Your task to perform on an android device: turn on location history Image 0: 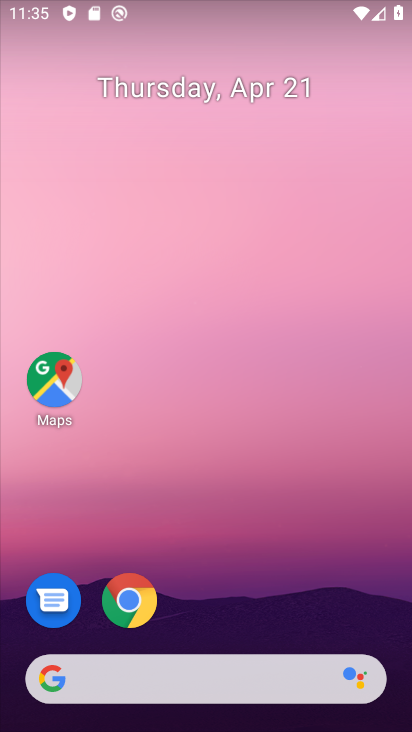
Step 0: drag from (304, 560) to (344, 64)
Your task to perform on an android device: turn on location history Image 1: 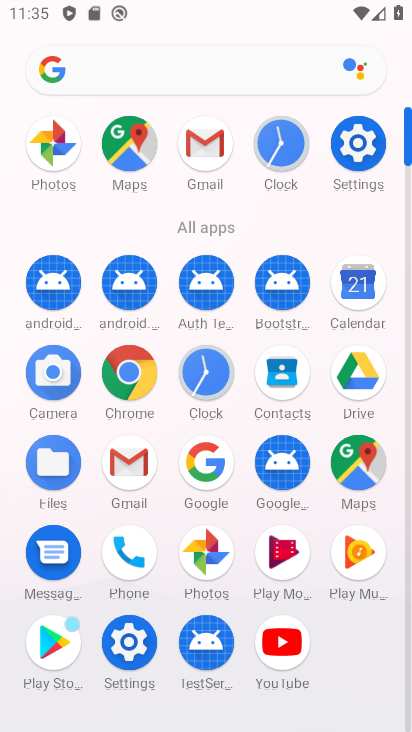
Step 1: click (351, 155)
Your task to perform on an android device: turn on location history Image 2: 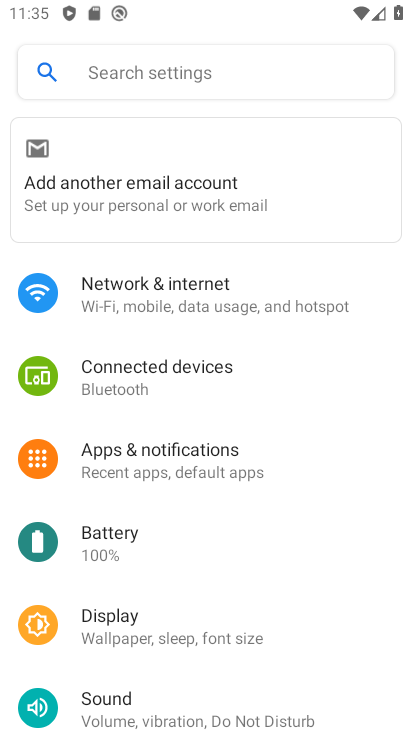
Step 2: drag from (158, 670) to (158, 170)
Your task to perform on an android device: turn on location history Image 3: 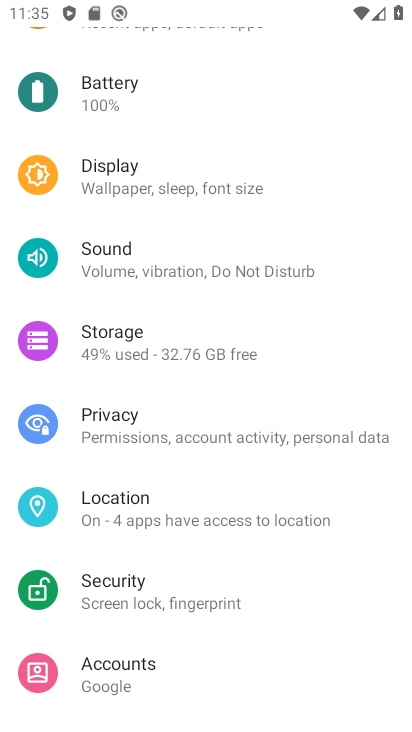
Step 3: click (144, 510)
Your task to perform on an android device: turn on location history Image 4: 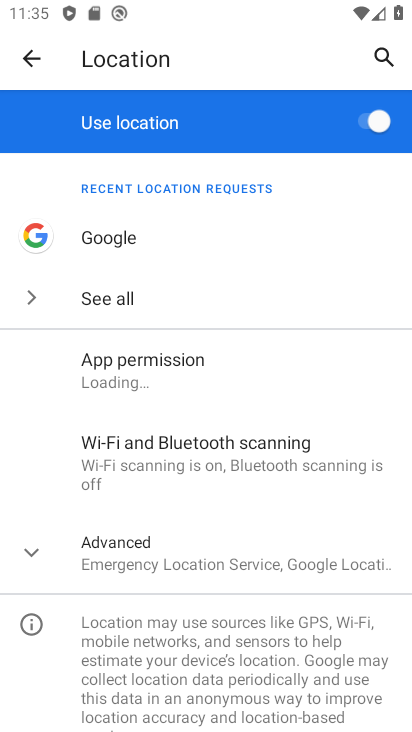
Step 4: click (41, 552)
Your task to perform on an android device: turn on location history Image 5: 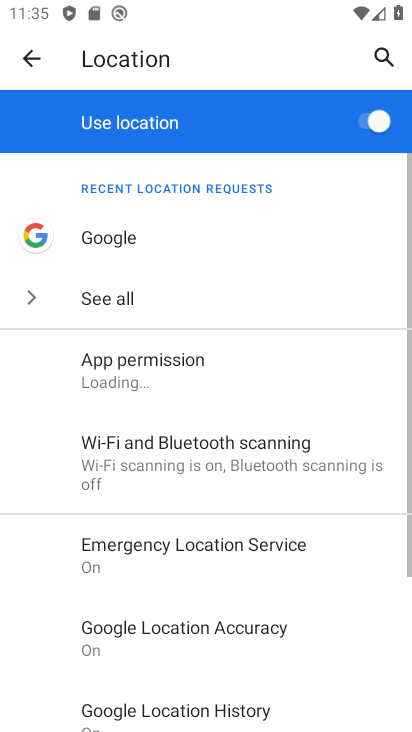
Step 5: drag from (227, 603) to (228, 318)
Your task to perform on an android device: turn on location history Image 6: 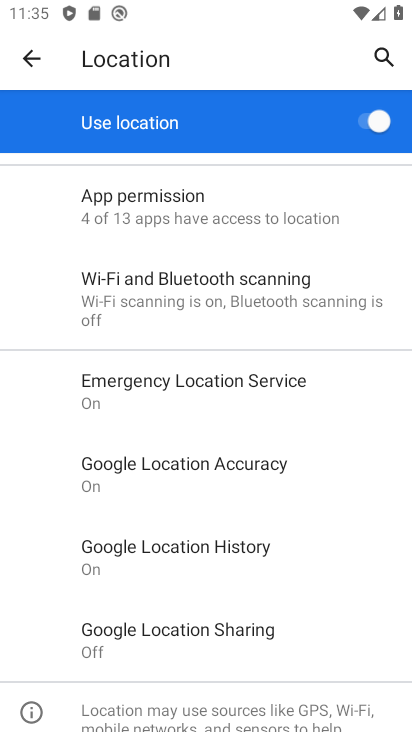
Step 6: click (232, 545)
Your task to perform on an android device: turn on location history Image 7: 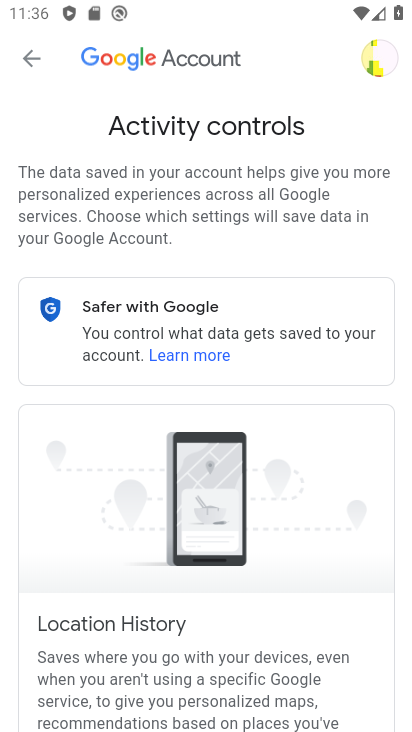
Step 7: drag from (205, 664) to (276, 199)
Your task to perform on an android device: turn on location history Image 8: 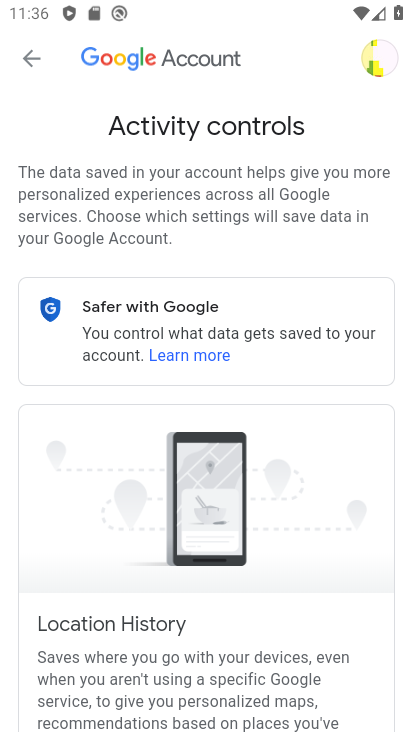
Step 8: drag from (235, 665) to (280, 264)
Your task to perform on an android device: turn on location history Image 9: 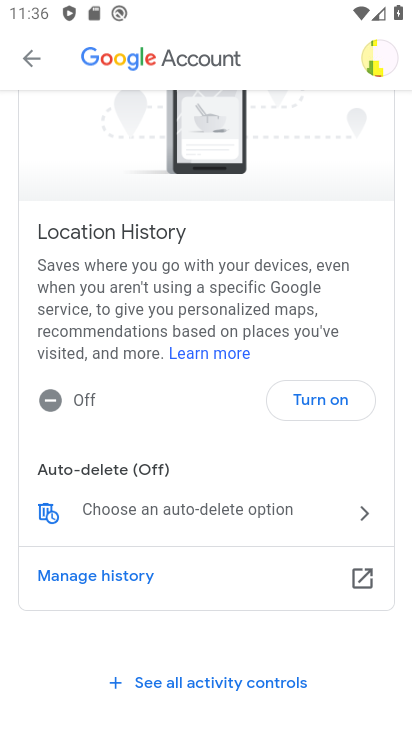
Step 9: click (340, 395)
Your task to perform on an android device: turn on location history Image 10: 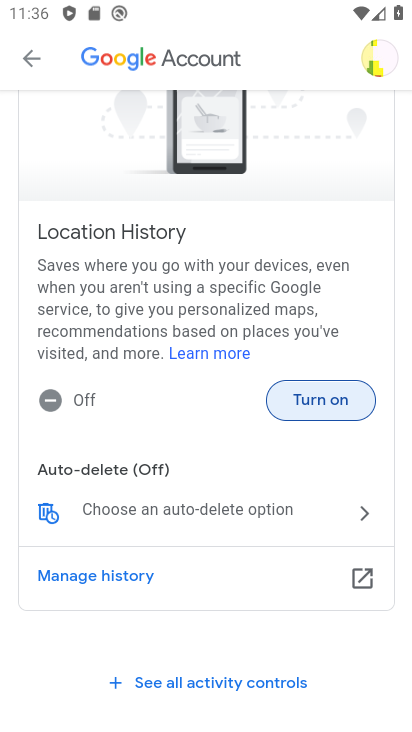
Step 10: click (319, 403)
Your task to perform on an android device: turn on location history Image 11: 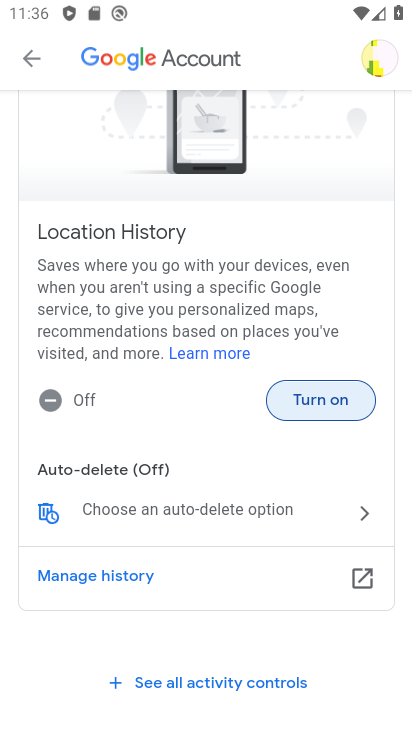
Step 11: click (347, 409)
Your task to perform on an android device: turn on location history Image 12: 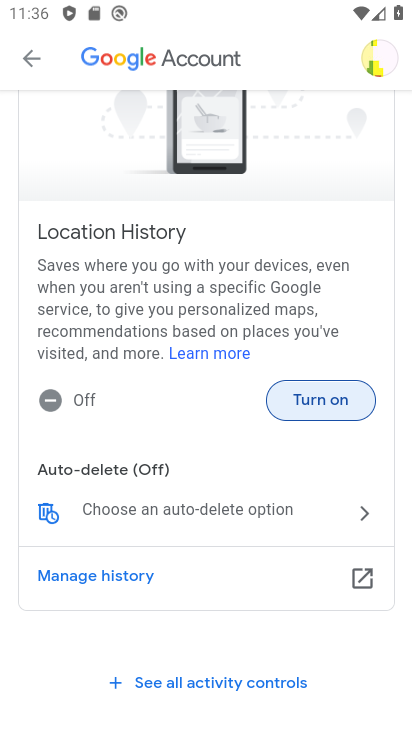
Step 12: task complete